Your task to perform on an android device: Show me recent news Image 0: 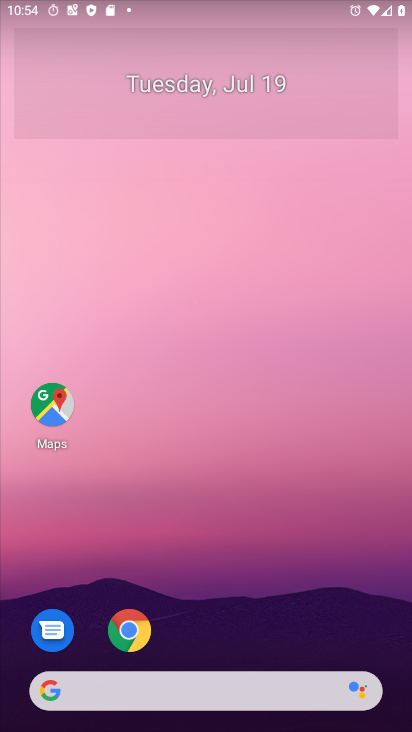
Step 0: press home button
Your task to perform on an android device: Show me recent news Image 1: 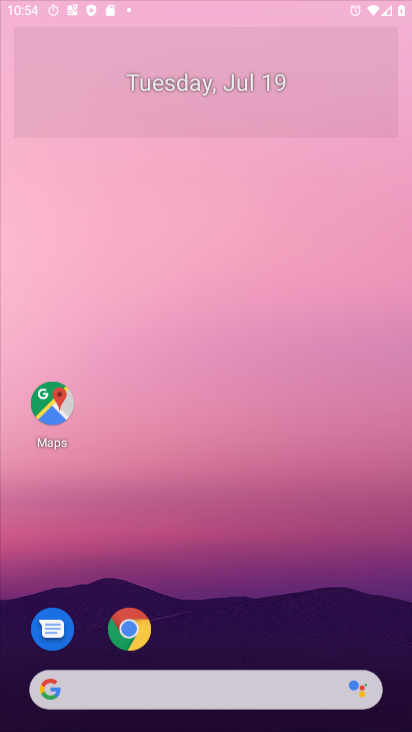
Step 1: press home button
Your task to perform on an android device: Show me recent news Image 2: 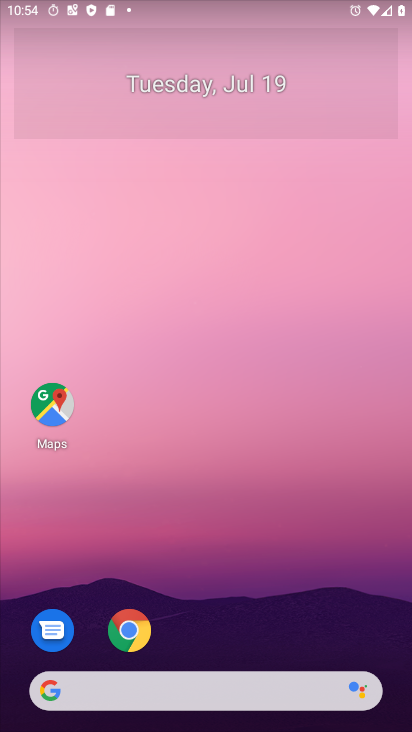
Step 2: click (56, 693)
Your task to perform on an android device: Show me recent news Image 3: 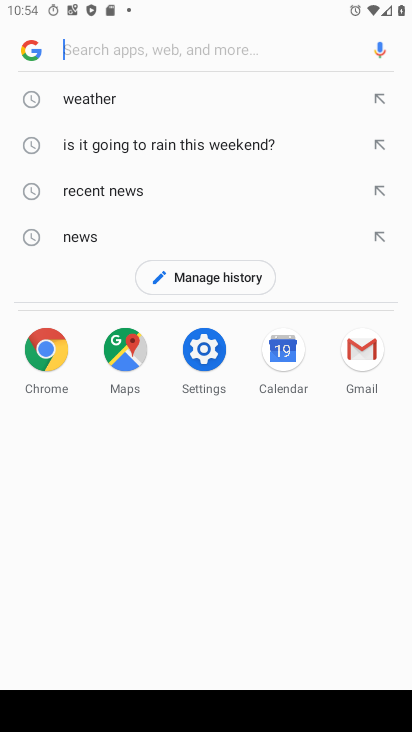
Step 3: click (100, 187)
Your task to perform on an android device: Show me recent news Image 4: 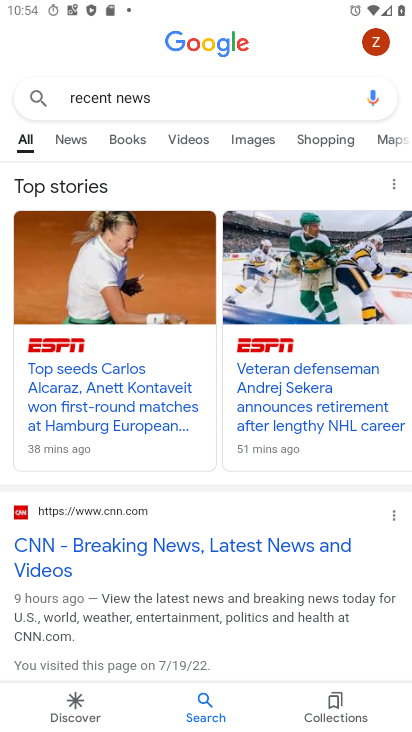
Step 4: task complete